Your task to perform on an android device: see creations saved in the google photos Image 0: 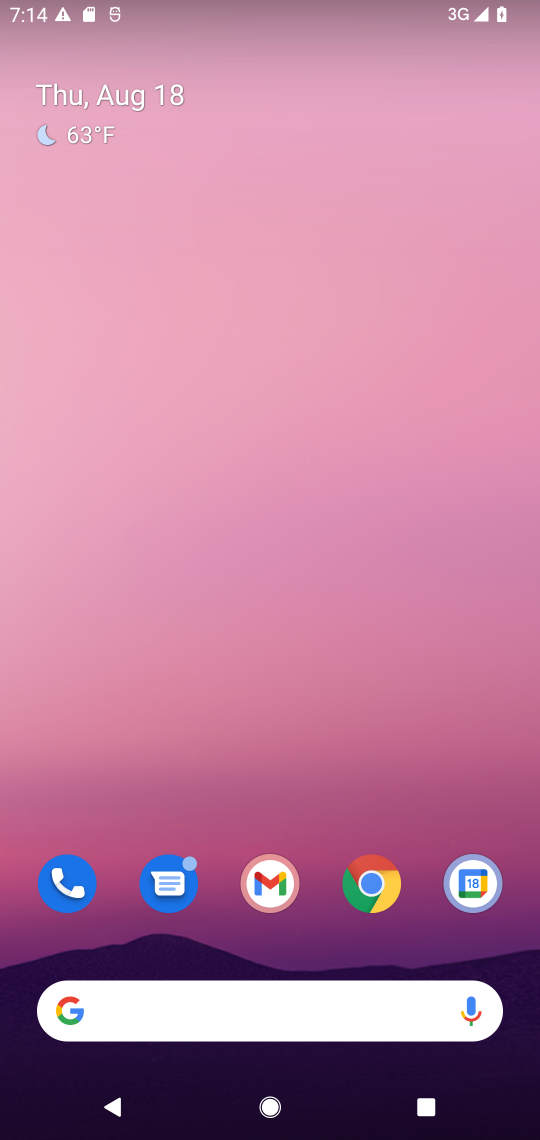
Step 0: drag from (55, 1059) to (242, 297)
Your task to perform on an android device: see creations saved in the google photos Image 1: 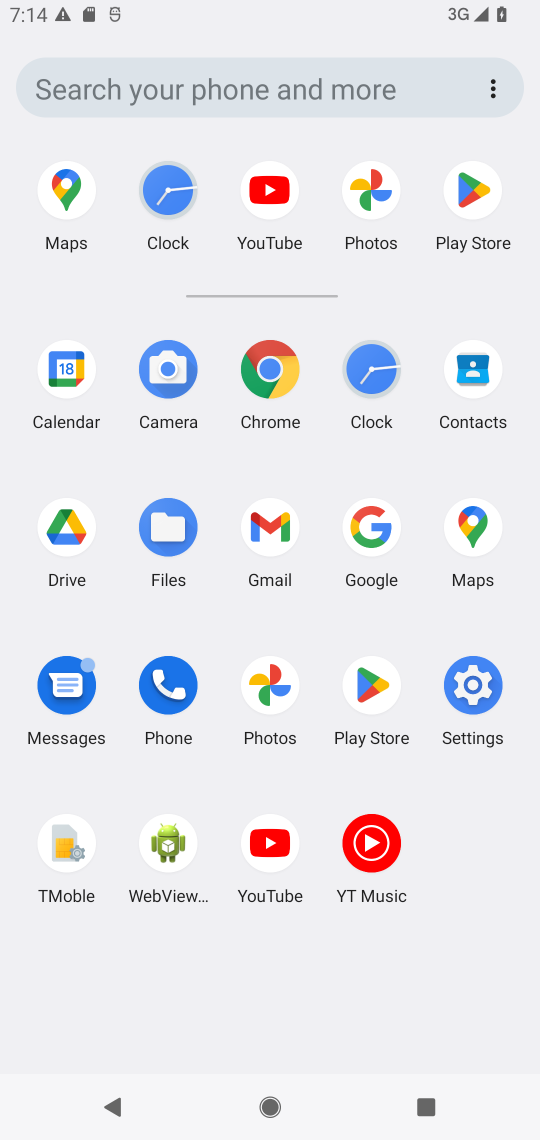
Step 1: click (250, 697)
Your task to perform on an android device: see creations saved in the google photos Image 2: 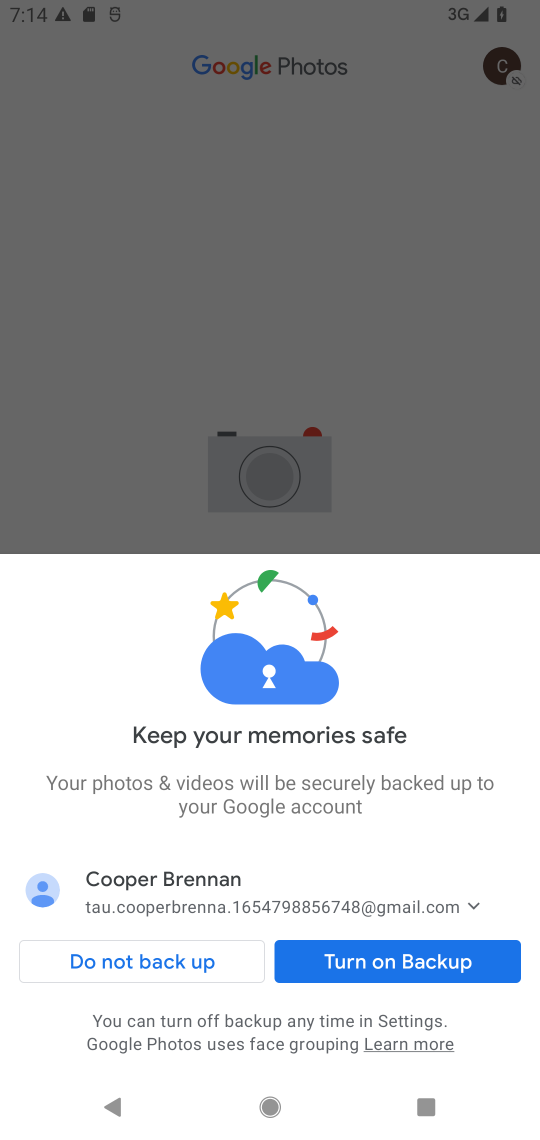
Step 2: click (140, 950)
Your task to perform on an android device: see creations saved in the google photos Image 3: 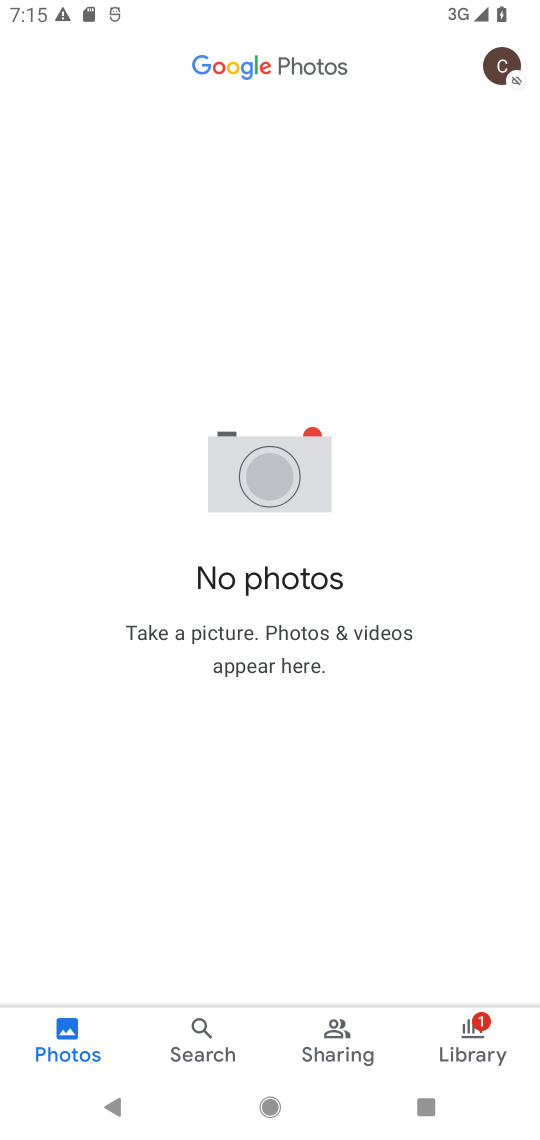
Step 3: task complete